Your task to perform on an android device: Find coffee shops on Maps Image 0: 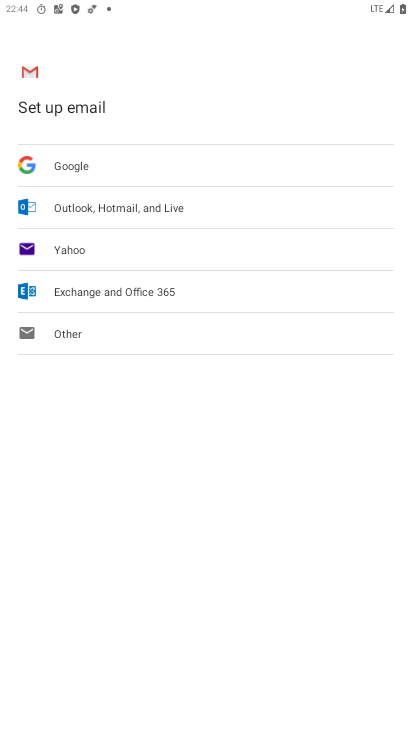
Step 0: press home button
Your task to perform on an android device: Find coffee shops on Maps Image 1: 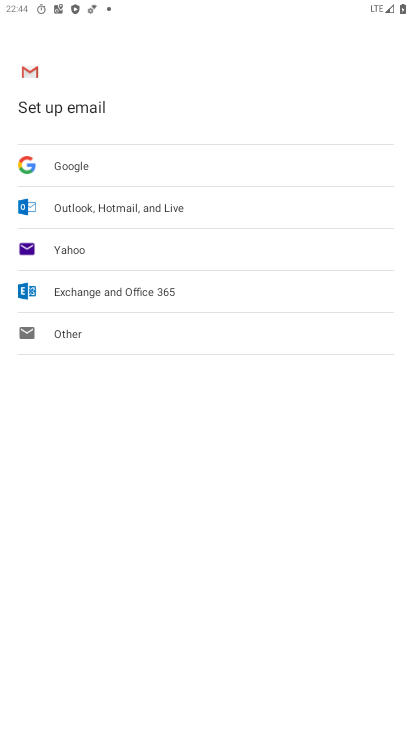
Step 1: press home button
Your task to perform on an android device: Find coffee shops on Maps Image 2: 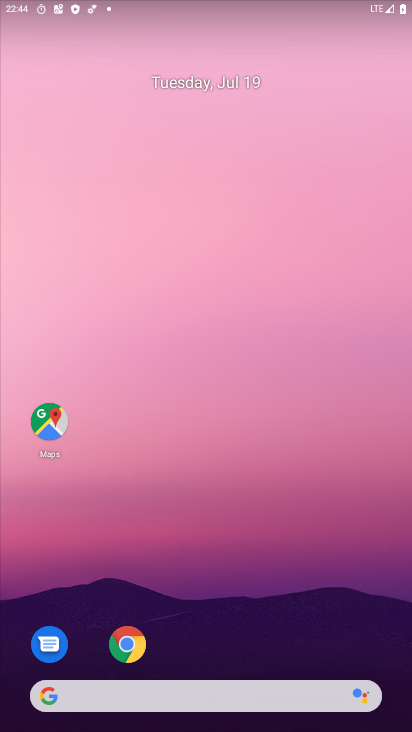
Step 2: click (35, 415)
Your task to perform on an android device: Find coffee shops on Maps Image 3: 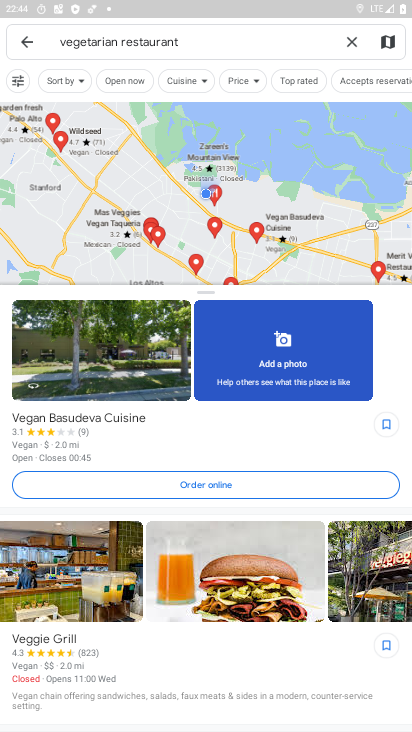
Step 3: click (352, 38)
Your task to perform on an android device: Find coffee shops on Maps Image 4: 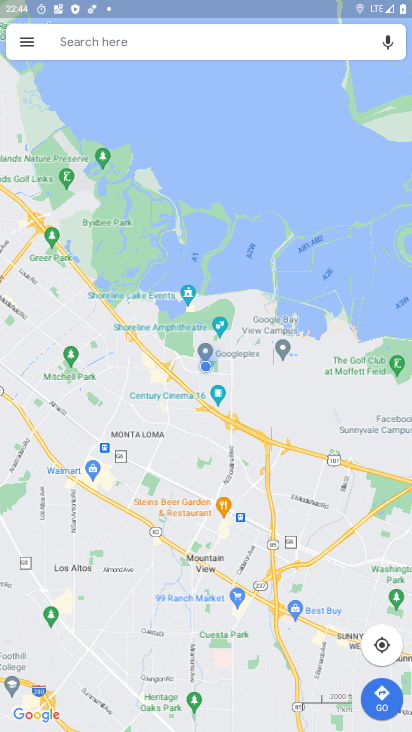
Step 4: click (346, 40)
Your task to perform on an android device: Find coffee shops on Maps Image 5: 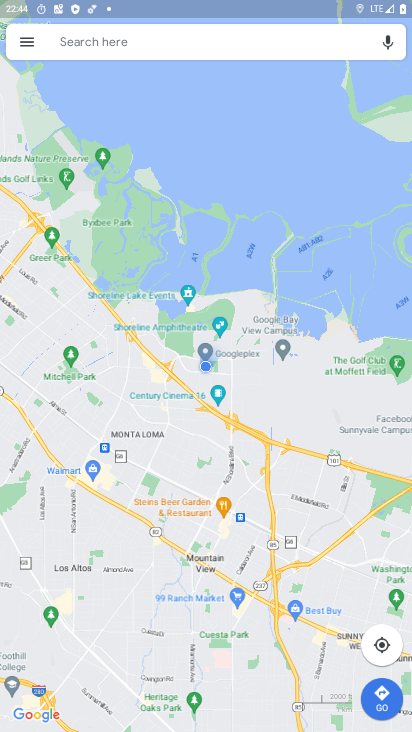
Step 5: click (346, 40)
Your task to perform on an android device: Find coffee shops on Maps Image 6: 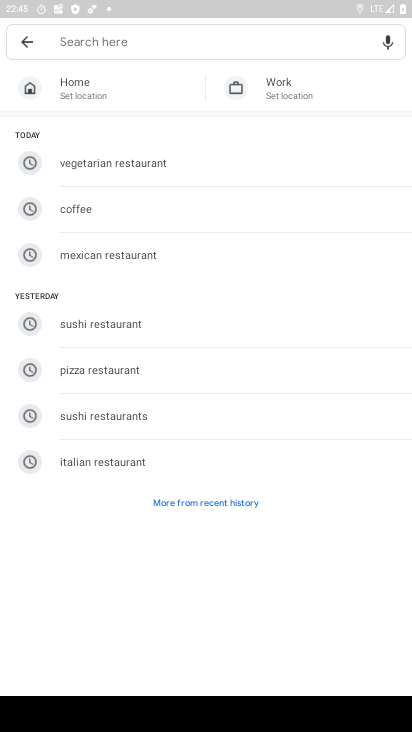
Step 6: type "coffee shops"
Your task to perform on an android device: Find coffee shops on Maps Image 7: 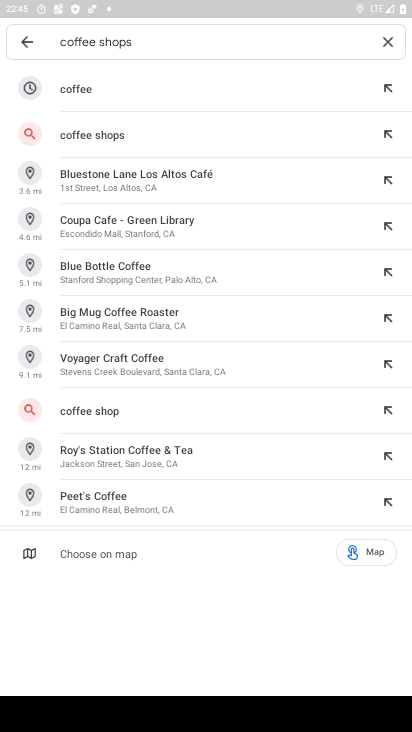
Step 7: click (67, 86)
Your task to perform on an android device: Find coffee shops on Maps Image 8: 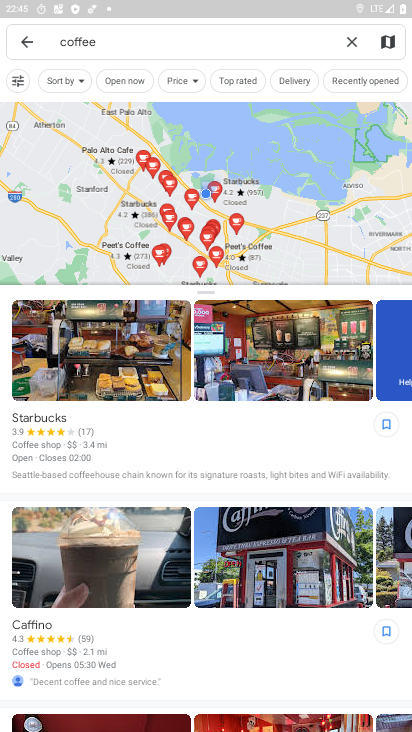
Step 8: task complete